Your task to perform on an android device: toggle translation in the chrome app Image 0: 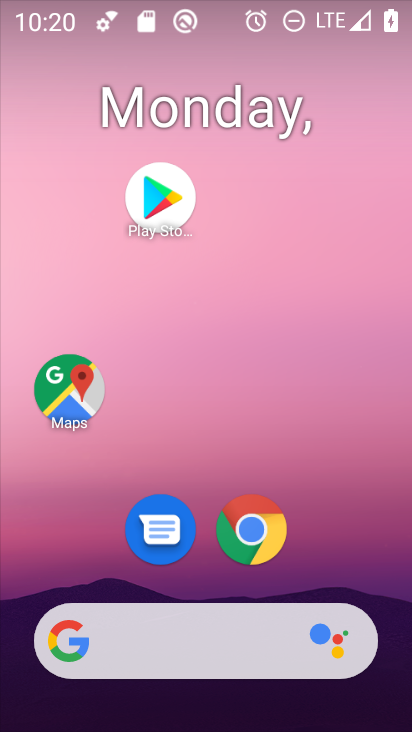
Step 0: click (261, 525)
Your task to perform on an android device: toggle translation in the chrome app Image 1: 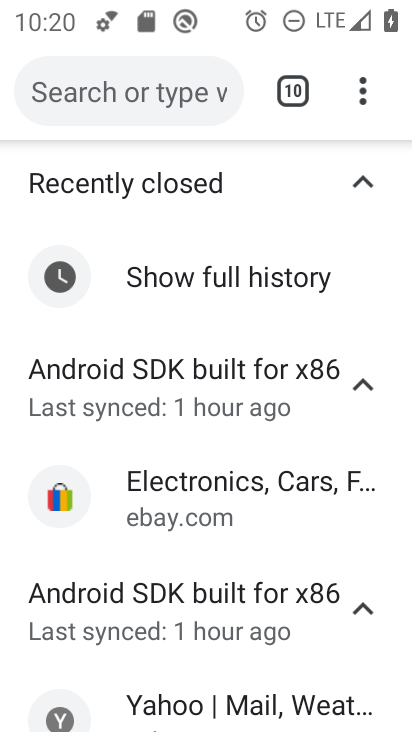
Step 1: click (356, 89)
Your task to perform on an android device: toggle translation in the chrome app Image 2: 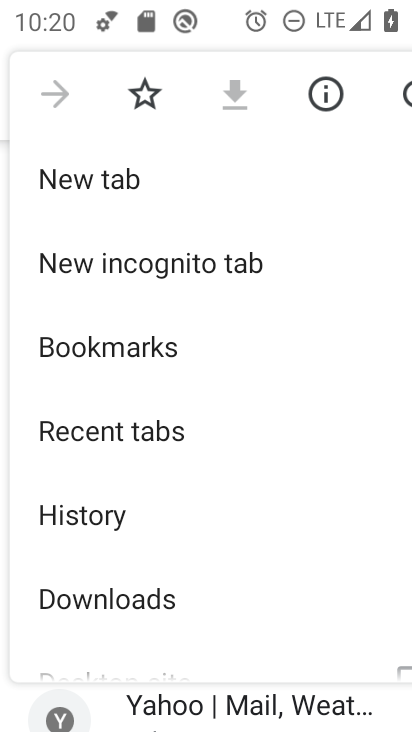
Step 2: drag from (215, 551) to (153, 215)
Your task to perform on an android device: toggle translation in the chrome app Image 3: 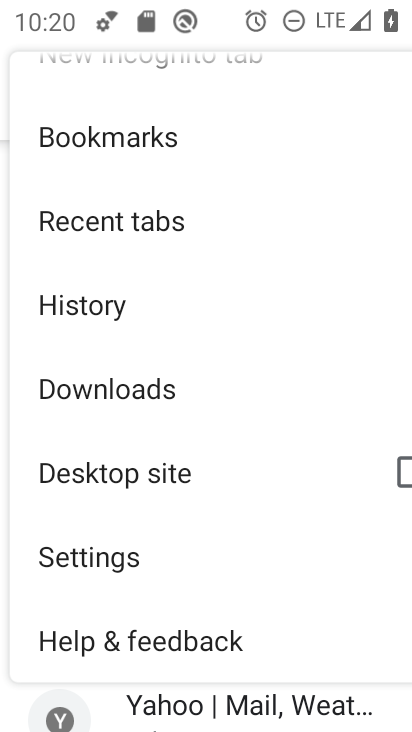
Step 3: click (117, 560)
Your task to perform on an android device: toggle translation in the chrome app Image 4: 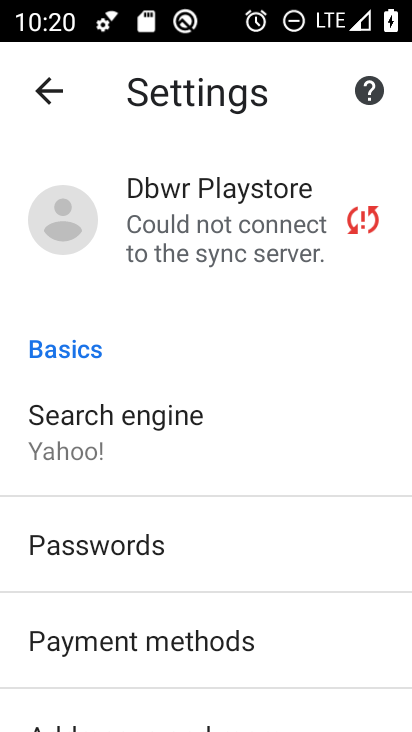
Step 4: drag from (276, 566) to (250, 316)
Your task to perform on an android device: toggle translation in the chrome app Image 5: 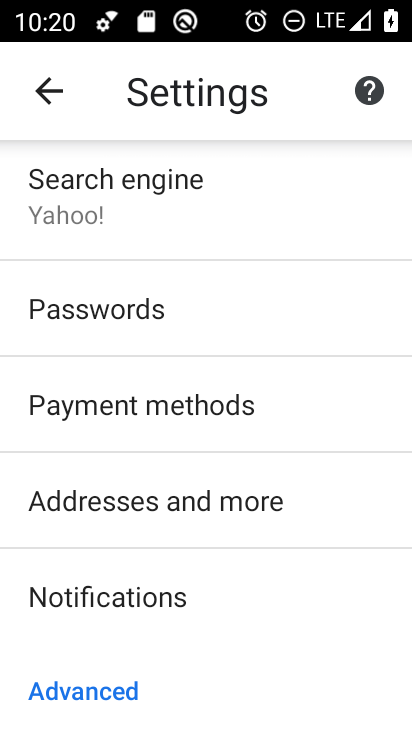
Step 5: drag from (246, 562) to (200, 203)
Your task to perform on an android device: toggle translation in the chrome app Image 6: 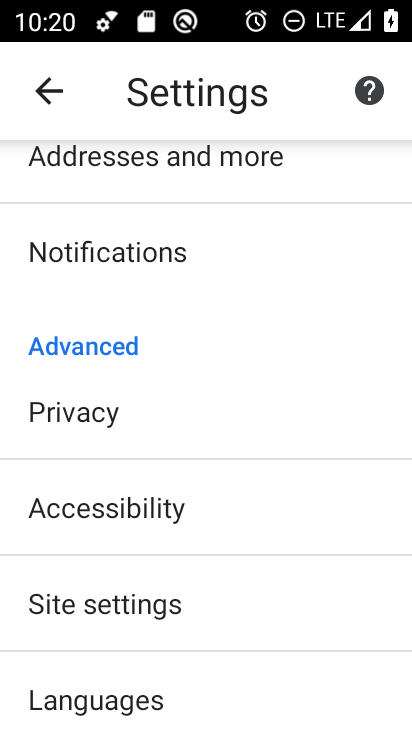
Step 6: click (114, 704)
Your task to perform on an android device: toggle translation in the chrome app Image 7: 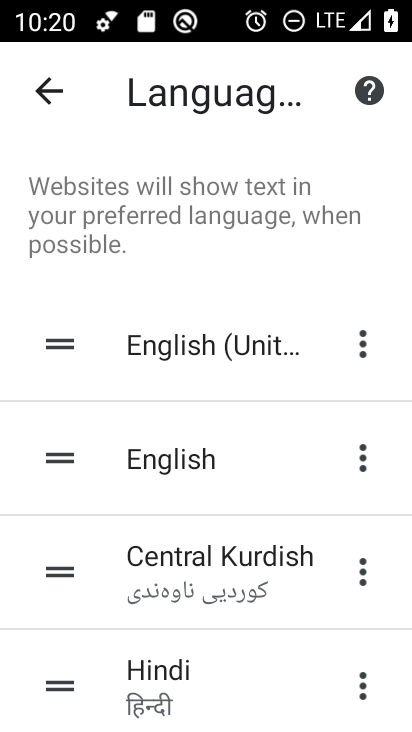
Step 7: drag from (261, 610) to (231, 315)
Your task to perform on an android device: toggle translation in the chrome app Image 8: 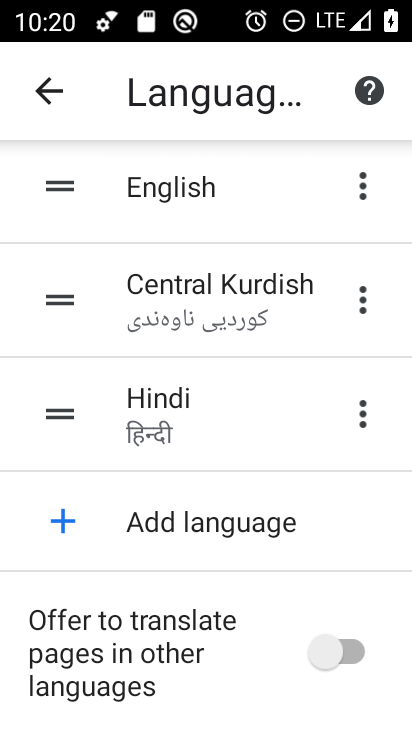
Step 8: drag from (285, 577) to (259, 274)
Your task to perform on an android device: toggle translation in the chrome app Image 9: 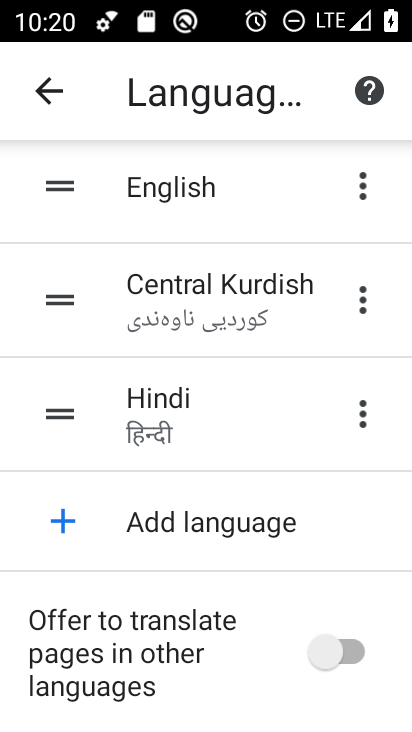
Step 9: click (311, 647)
Your task to perform on an android device: toggle translation in the chrome app Image 10: 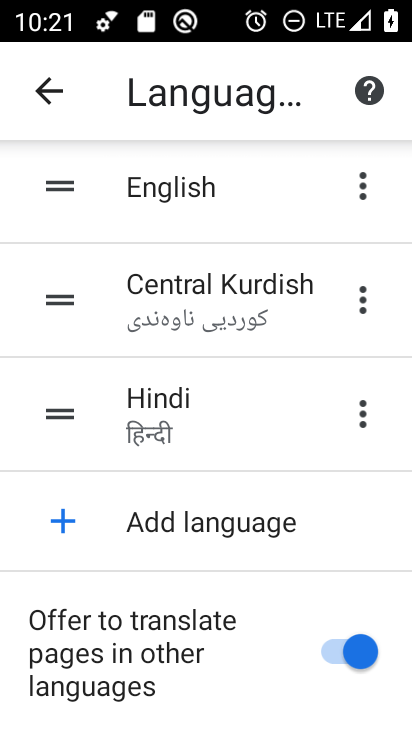
Step 10: task complete